Your task to perform on an android device: Open Google Chrome and open the bookmarks view Image 0: 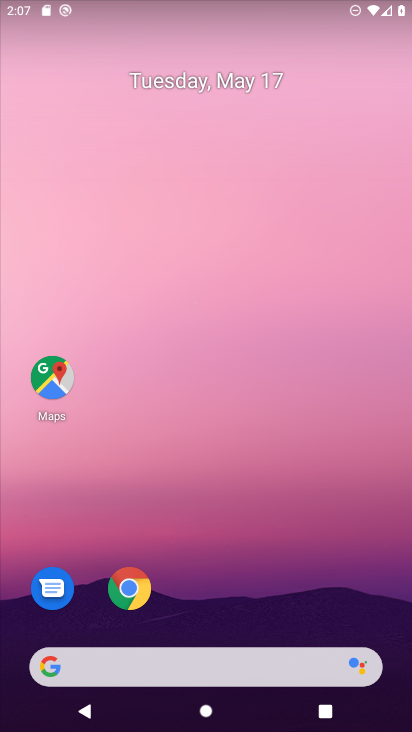
Step 0: click (120, 595)
Your task to perform on an android device: Open Google Chrome and open the bookmarks view Image 1: 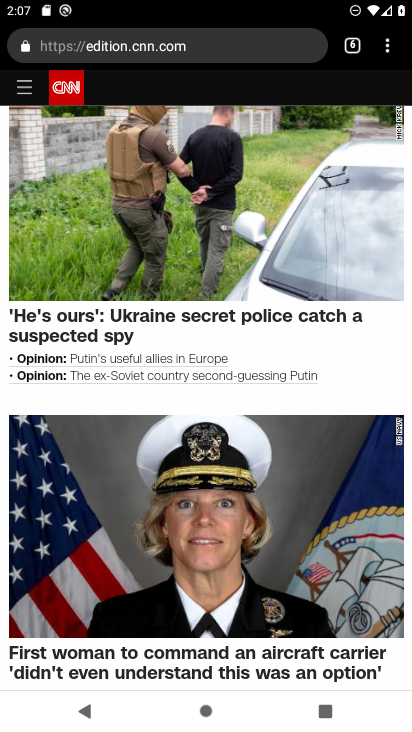
Step 1: click (388, 46)
Your task to perform on an android device: Open Google Chrome and open the bookmarks view Image 2: 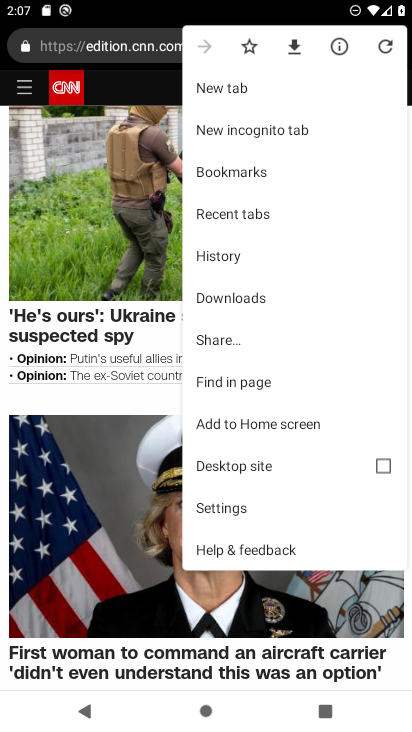
Step 2: click (244, 171)
Your task to perform on an android device: Open Google Chrome and open the bookmarks view Image 3: 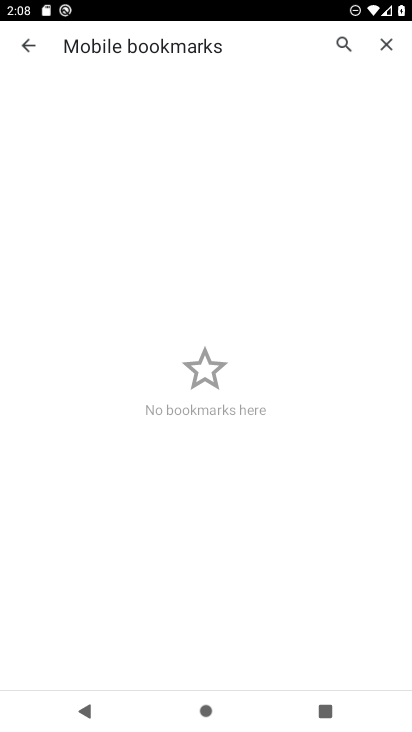
Step 3: task complete